Your task to perform on an android device: turn off location history Image 0: 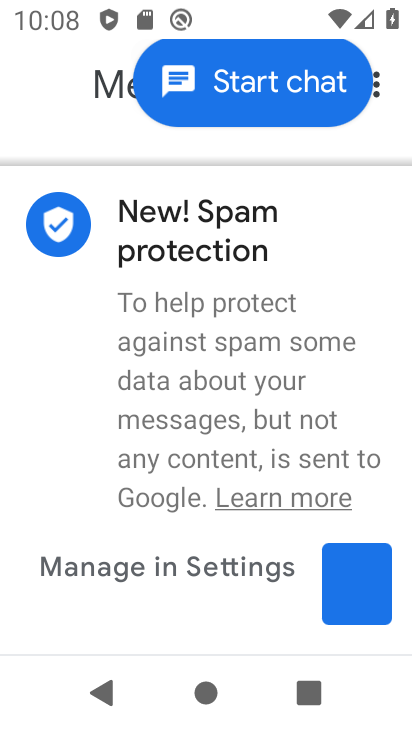
Step 0: press home button
Your task to perform on an android device: turn off location history Image 1: 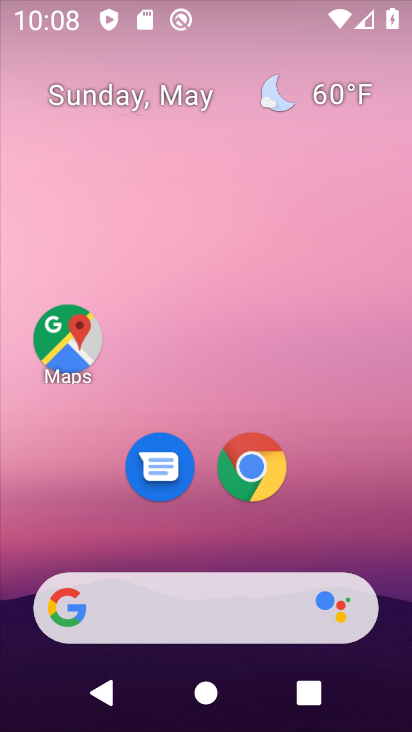
Step 1: drag from (366, 458) to (243, 0)
Your task to perform on an android device: turn off location history Image 2: 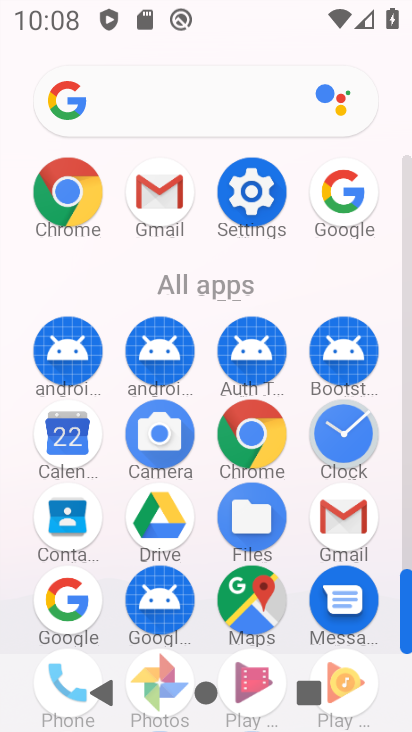
Step 2: click (238, 174)
Your task to perform on an android device: turn off location history Image 3: 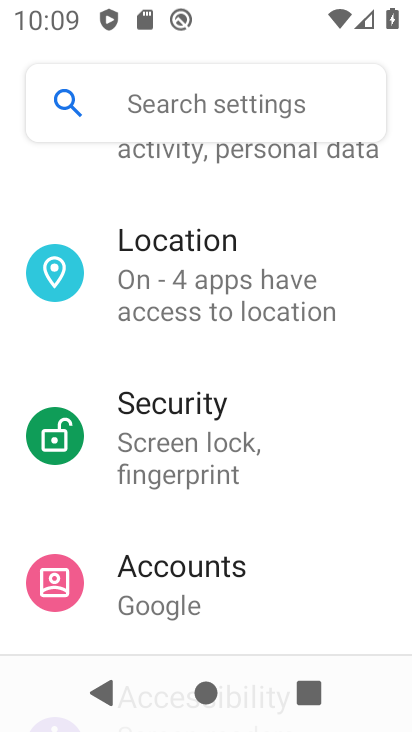
Step 3: click (183, 282)
Your task to perform on an android device: turn off location history Image 4: 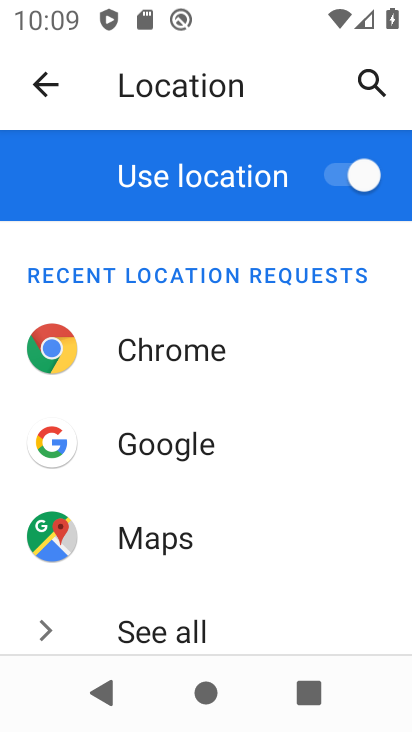
Step 4: drag from (280, 570) to (247, 208)
Your task to perform on an android device: turn off location history Image 5: 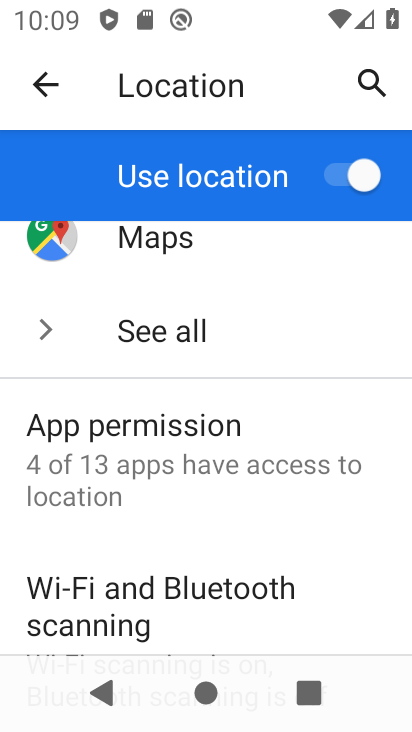
Step 5: drag from (240, 512) to (246, 178)
Your task to perform on an android device: turn off location history Image 6: 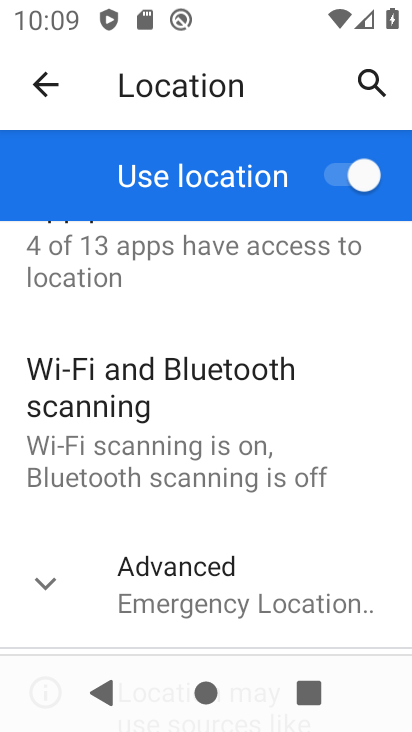
Step 6: click (233, 581)
Your task to perform on an android device: turn off location history Image 7: 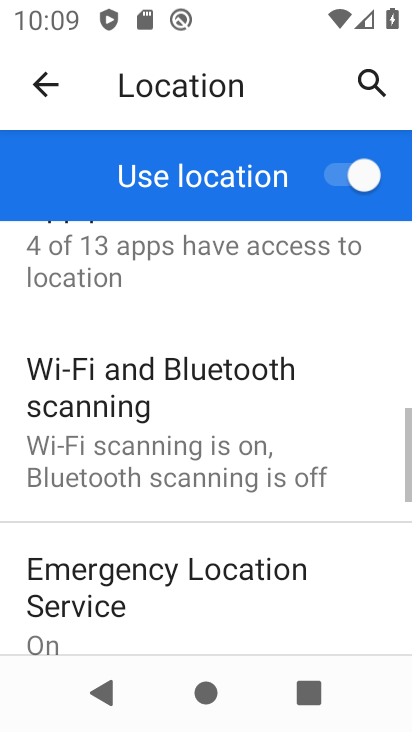
Step 7: drag from (225, 600) to (202, 296)
Your task to perform on an android device: turn off location history Image 8: 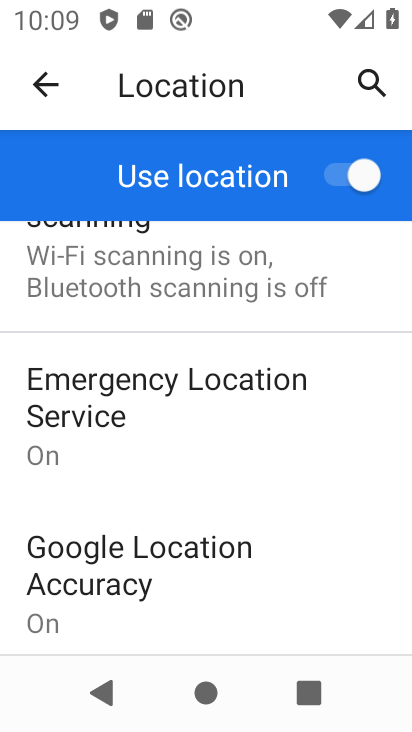
Step 8: drag from (237, 618) to (225, 369)
Your task to perform on an android device: turn off location history Image 9: 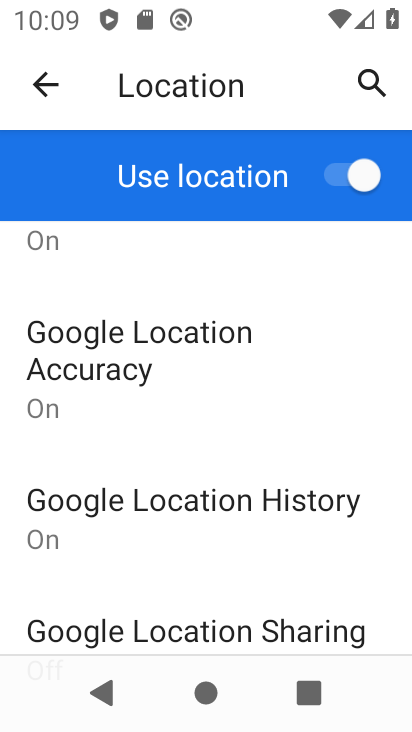
Step 9: click (144, 506)
Your task to perform on an android device: turn off location history Image 10: 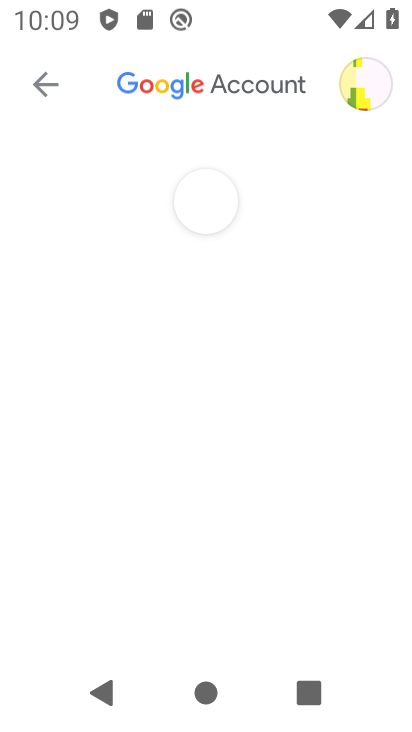
Step 10: drag from (106, 613) to (79, 259)
Your task to perform on an android device: turn off location history Image 11: 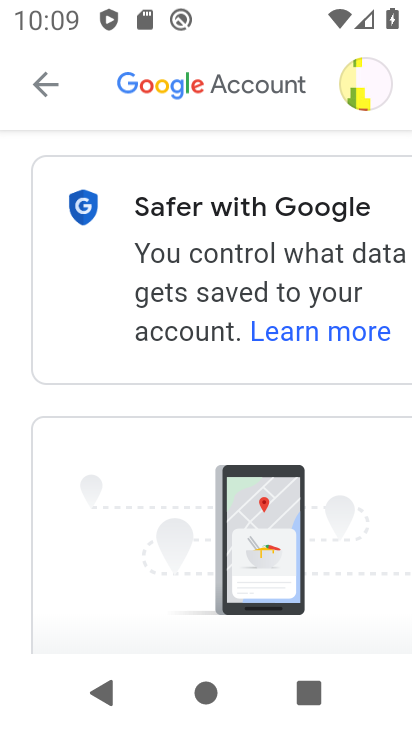
Step 11: drag from (74, 489) to (91, 205)
Your task to perform on an android device: turn off location history Image 12: 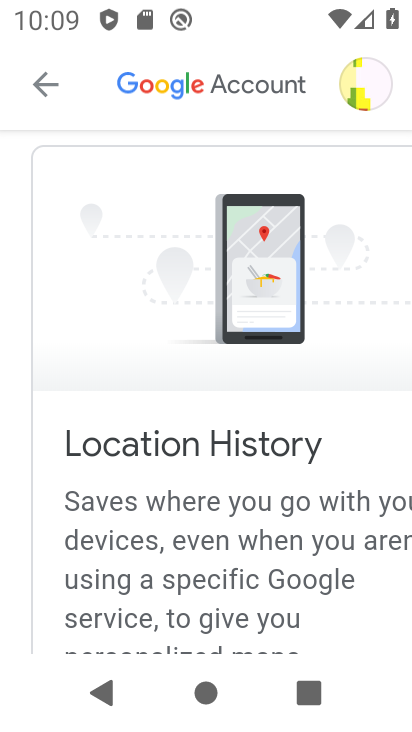
Step 12: drag from (73, 557) to (81, 218)
Your task to perform on an android device: turn off location history Image 13: 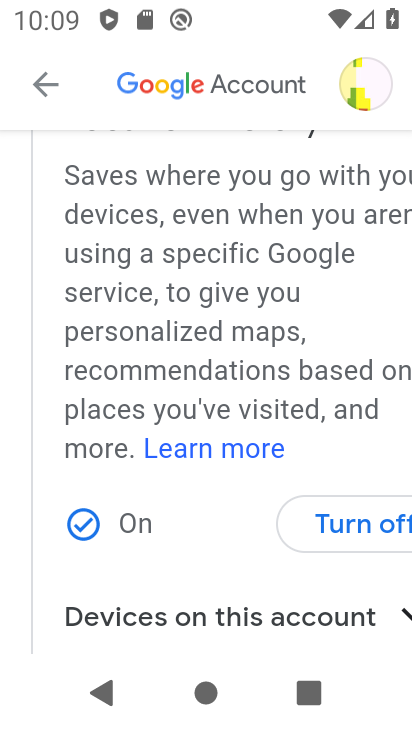
Step 13: click (355, 532)
Your task to perform on an android device: turn off location history Image 14: 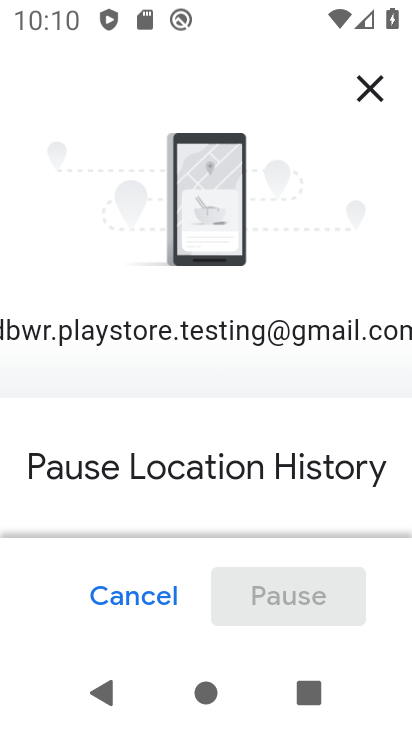
Step 14: drag from (236, 482) to (258, 172)
Your task to perform on an android device: turn off location history Image 15: 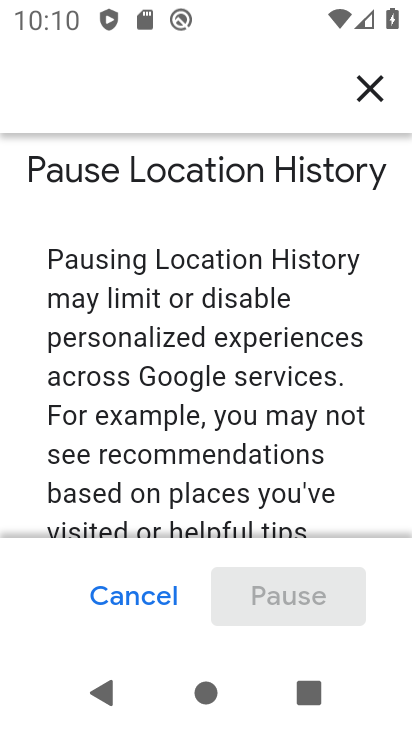
Step 15: drag from (230, 463) to (230, 51)
Your task to perform on an android device: turn off location history Image 16: 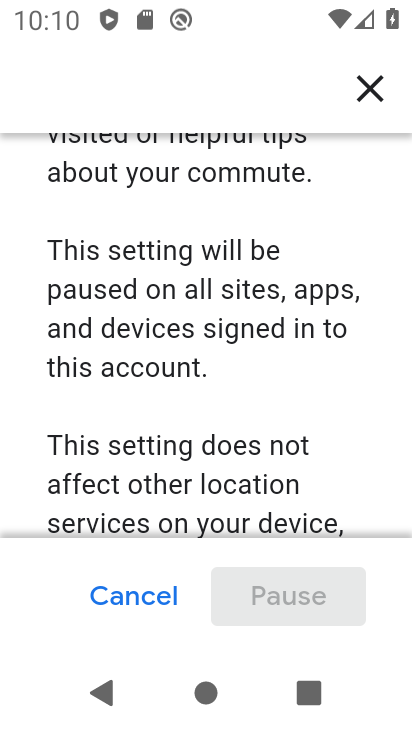
Step 16: drag from (194, 440) to (246, 61)
Your task to perform on an android device: turn off location history Image 17: 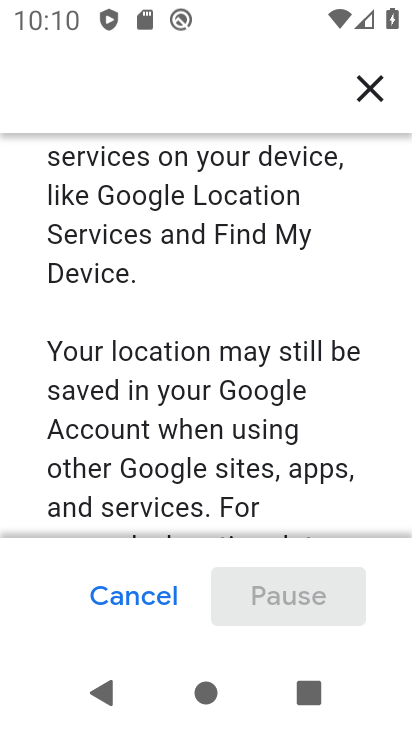
Step 17: drag from (231, 416) to (179, 117)
Your task to perform on an android device: turn off location history Image 18: 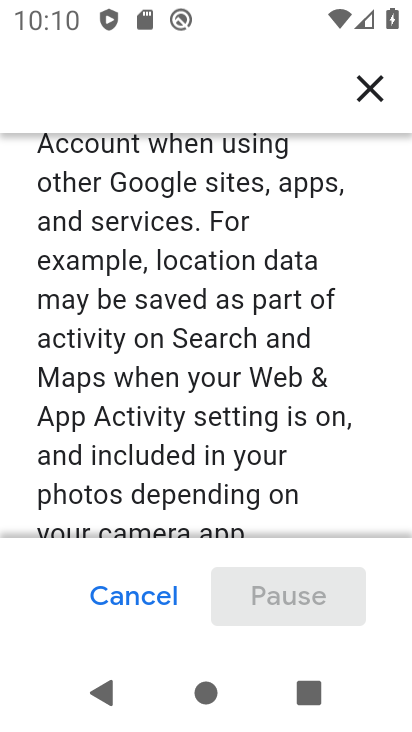
Step 18: drag from (270, 477) to (212, 195)
Your task to perform on an android device: turn off location history Image 19: 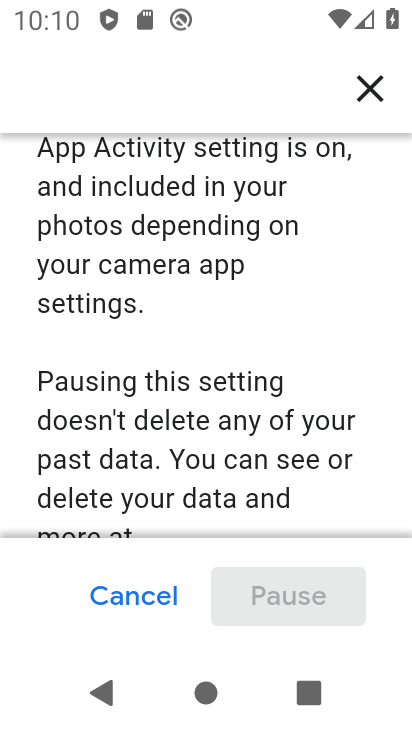
Step 19: drag from (264, 512) to (243, 254)
Your task to perform on an android device: turn off location history Image 20: 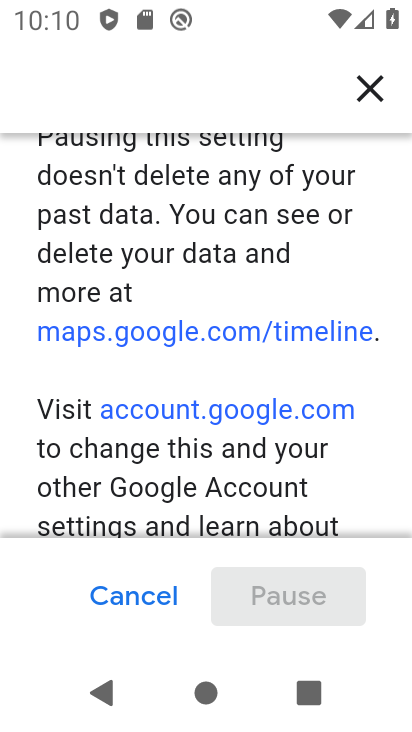
Step 20: drag from (288, 514) to (258, 161)
Your task to perform on an android device: turn off location history Image 21: 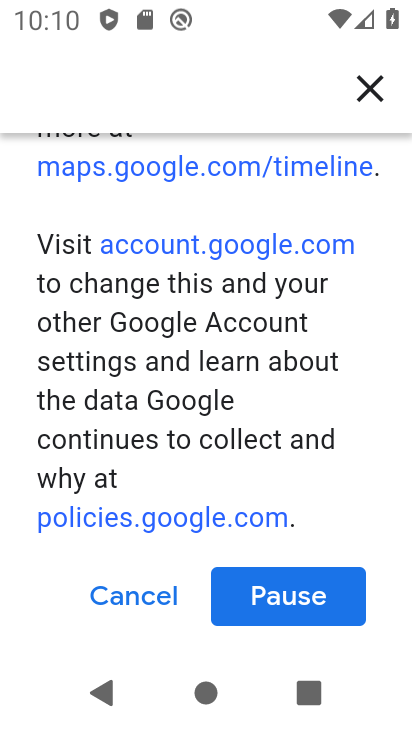
Step 21: click (281, 607)
Your task to perform on an android device: turn off location history Image 22: 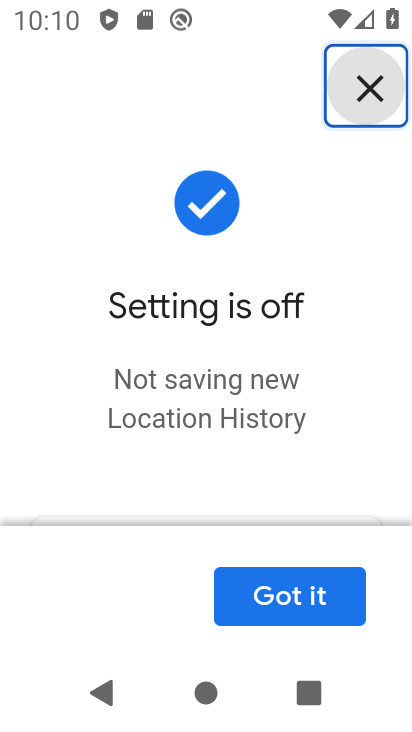
Step 22: task complete